Your task to perform on an android device: Open my contact list Image 0: 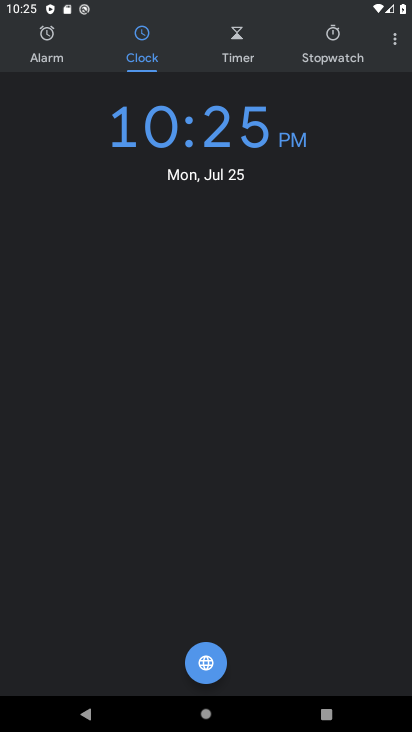
Step 0: press back button
Your task to perform on an android device: Open my contact list Image 1: 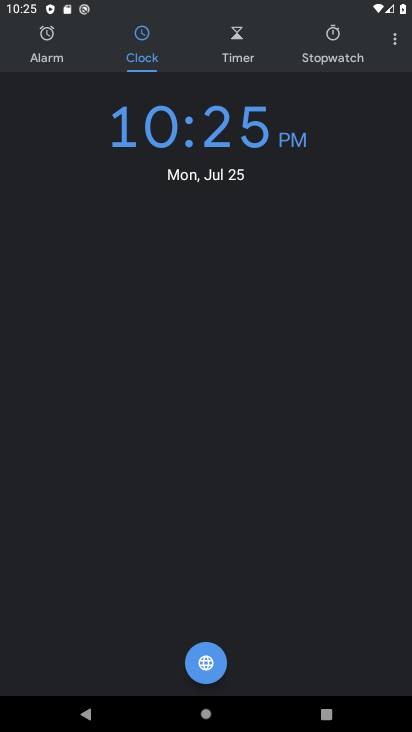
Step 1: press back button
Your task to perform on an android device: Open my contact list Image 2: 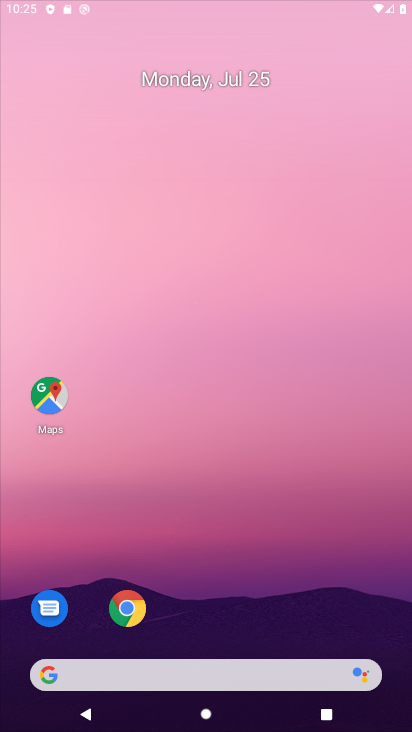
Step 2: press back button
Your task to perform on an android device: Open my contact list Image 3: 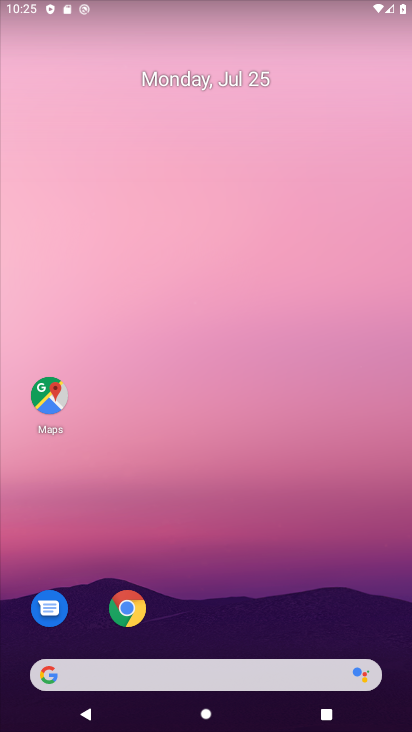
Step 3: drag from (278, 589) to (197, 72)
Your task to perform on an android device: Open my contact list Image 4: 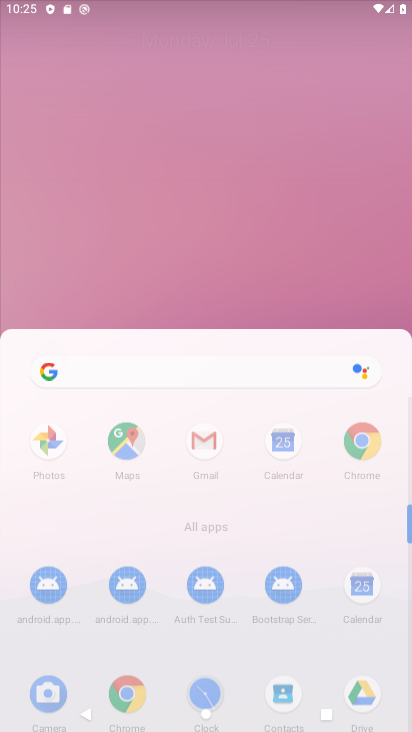
Step 4: drag from (310, 545) to (296, 188)
Your task to perform on an android device: Open my contact list Image 5: 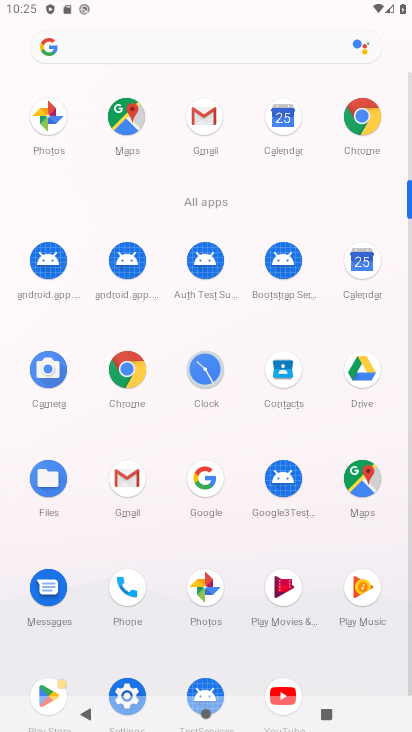
Step 5: click (282, 367)
Your task to perform on an android device: Open my contact list Image 6: 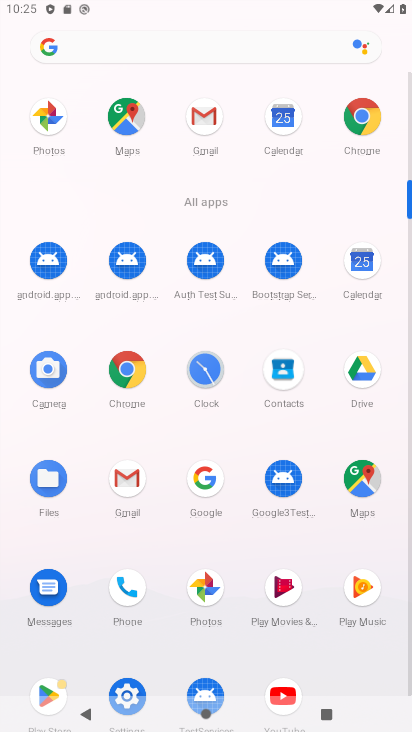
Step 6: click (284, 364)
Your task to perform on an android device: Open my contact list Image 7: 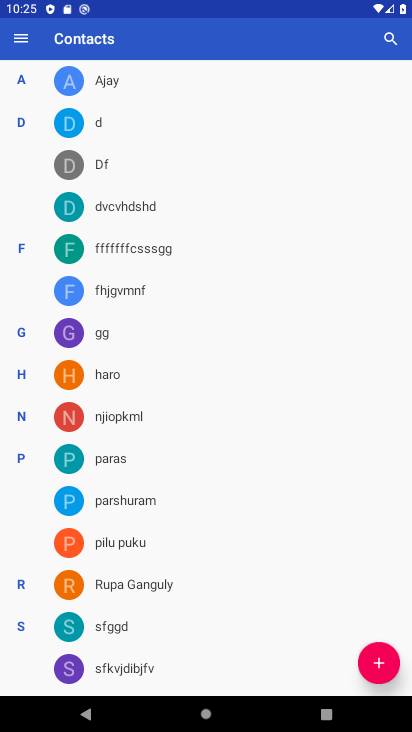
Step 7: task complete